Your task to perform on an android device: Go to ESPN.com Image 0: 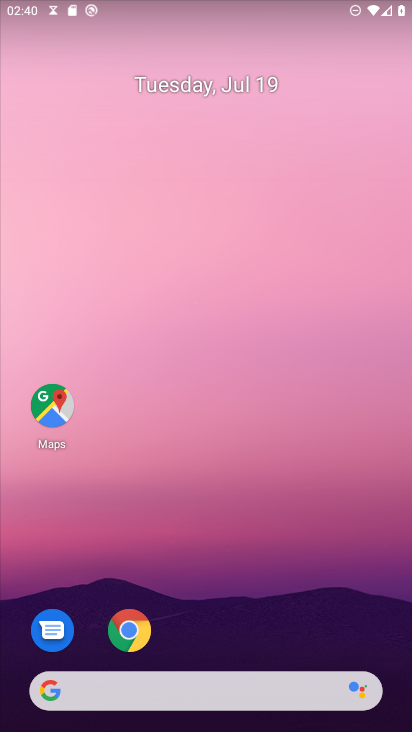
Step 0: press home button
Your task to perform on an android device: Go to ESPN.com Image 1: 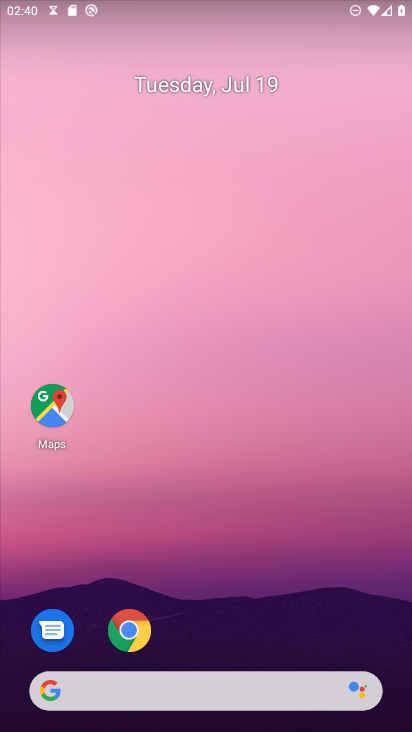
Step 1: click (131, 628)
Your task to perform on an android device: Go to ESPN.com Image 2: 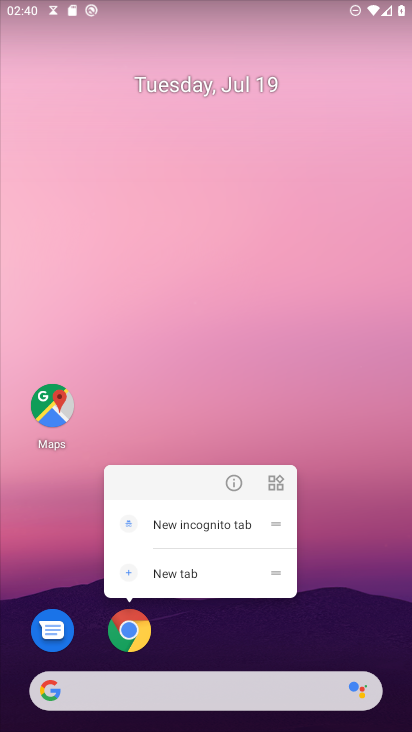
Step 2: click (132, 631)
Your task to perform on an android device: Go to ESPN.com Image 3: 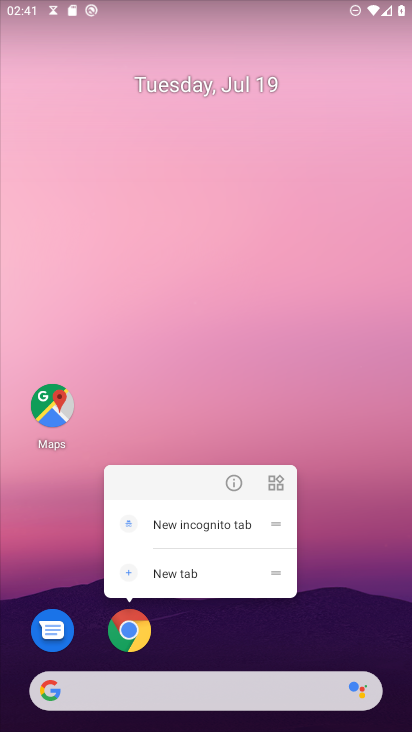
Step 3: click (142, 637)
Your task to perform on an android device: Go to ESPN.com Image 4: 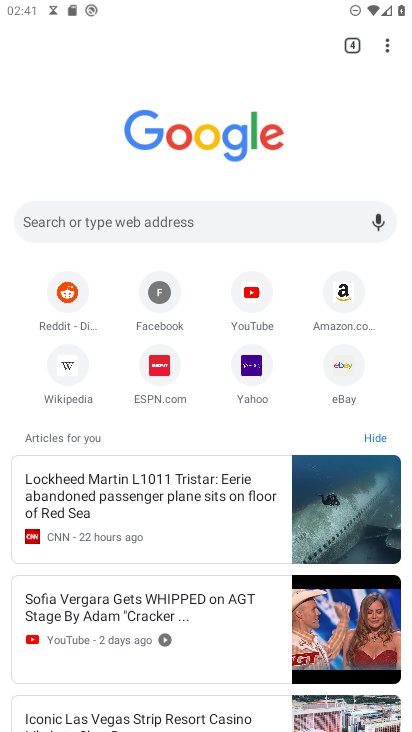
Step 4: click (164, 379)
Your task to perform on an android device: Go to ESPN.com Image 5: 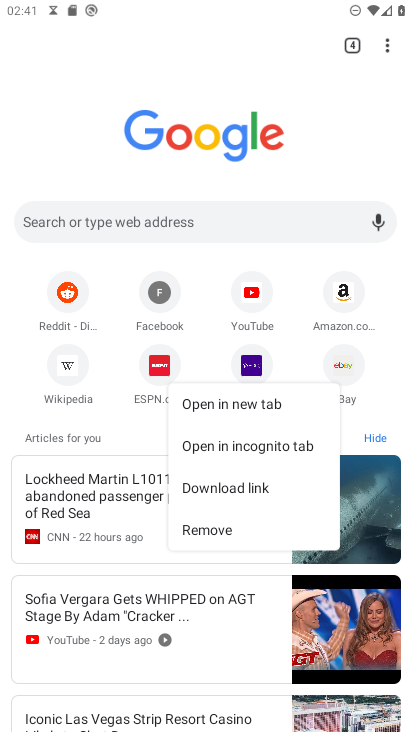
Step 5: click (155, 375)
Your task to perform on an android device: Go to ESPN.com Image 6: 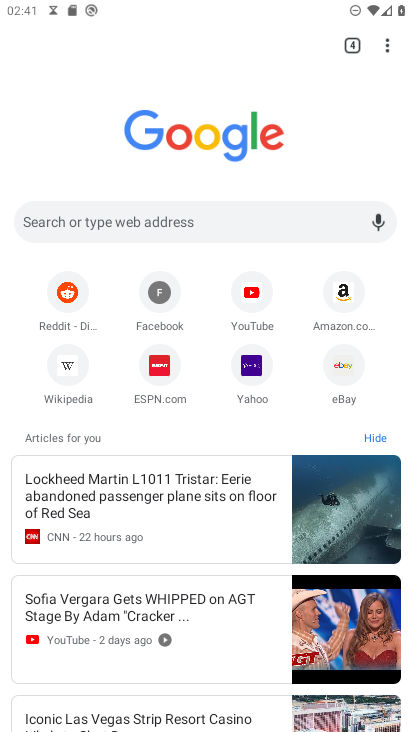
Step 6: click (164, 365)
Your task to perform on an android device: Go to ESPN.com Image 7: 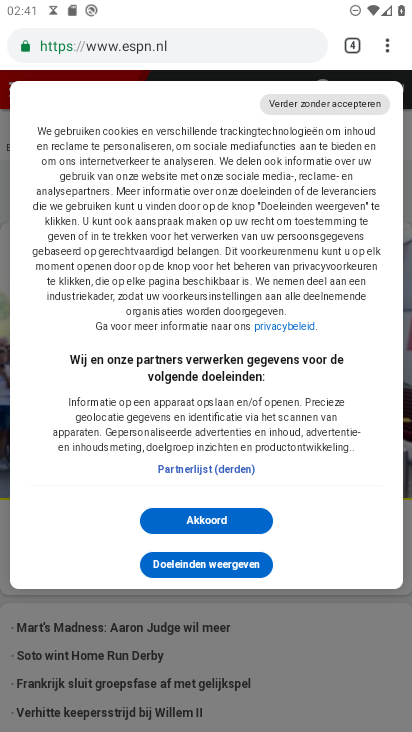
Step 7: click (214, 515)
Your task to perform on an android device: Go to ESPN.com Image 8: 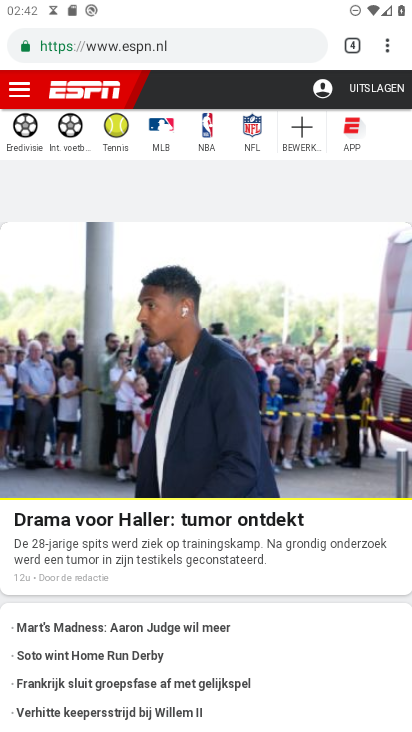
Step 8: task complete